Your task to perform on an android device: Check the news Image 0: 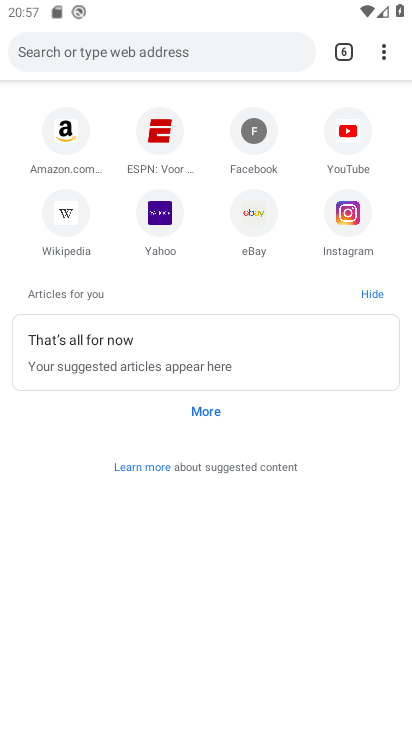
Step 0: press home button
Your task to perform on an android device: Check the news Image 1: 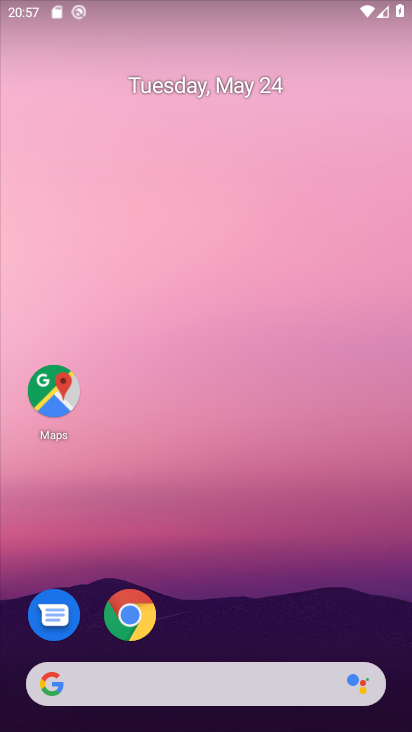
Step 1: click (135, 605)
Your task to perform on an android device: Check the news Image 2: 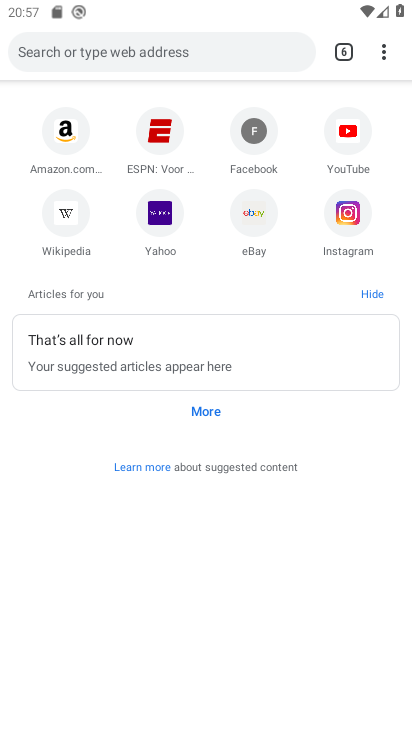
Step 2: click (116, 42)
Your task to perform on an android device: Check the news Image 3: 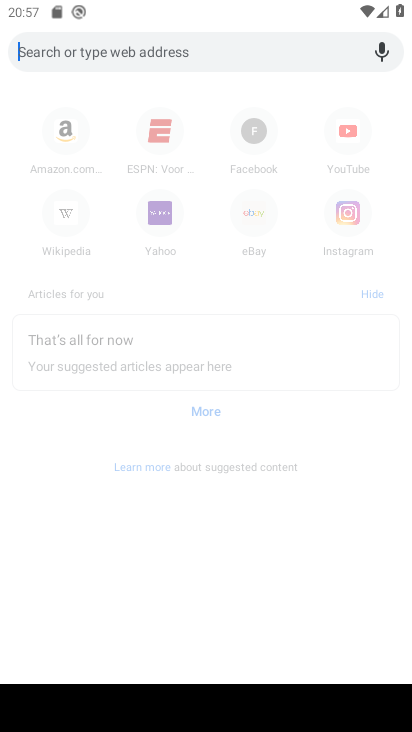
Step 3: type "Check the news"
Your task to perform on an android device: Check the news Image 4: 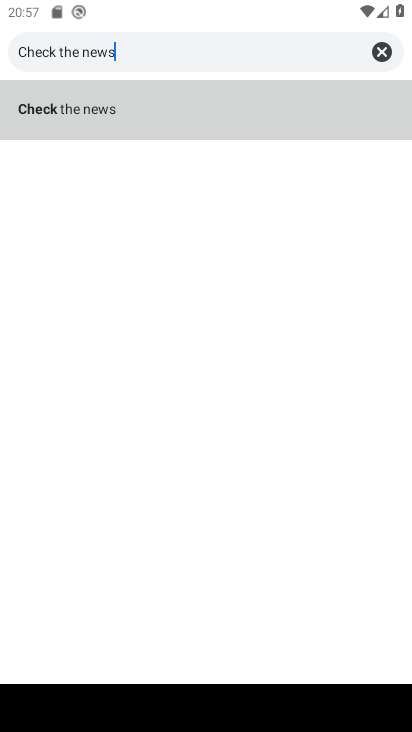
Step 4: click (154, 118)
Your task to perform on an android device: Check the news Image 5: 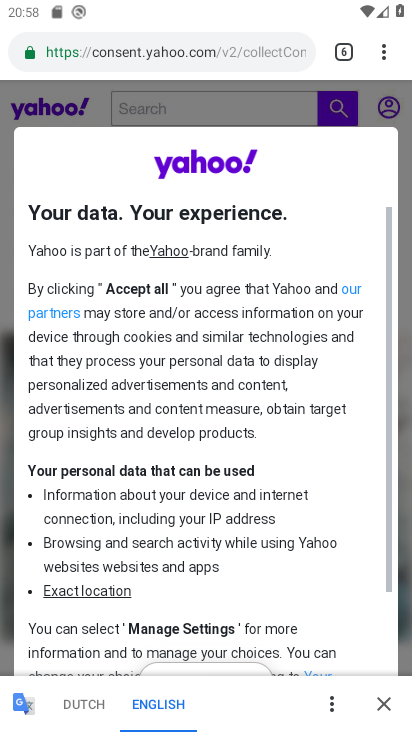
Step 5: task complete